Your task to perform on an android device: change alarm snooze length Image 0: 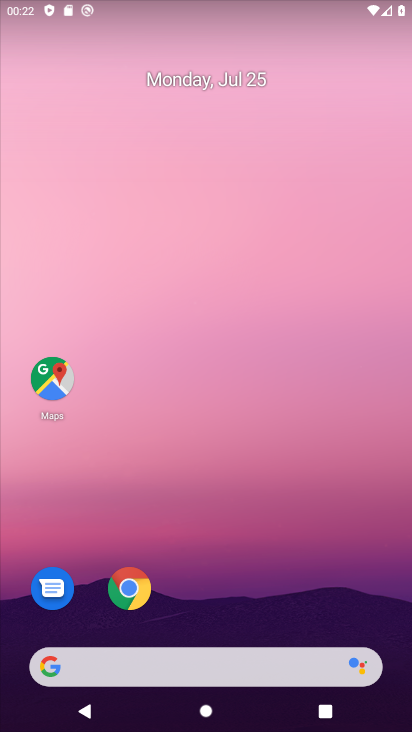
Step 0: drag from (256, 622) to (308, 4)
Your task to perform on an android device: change alarm snooze length Image 1: 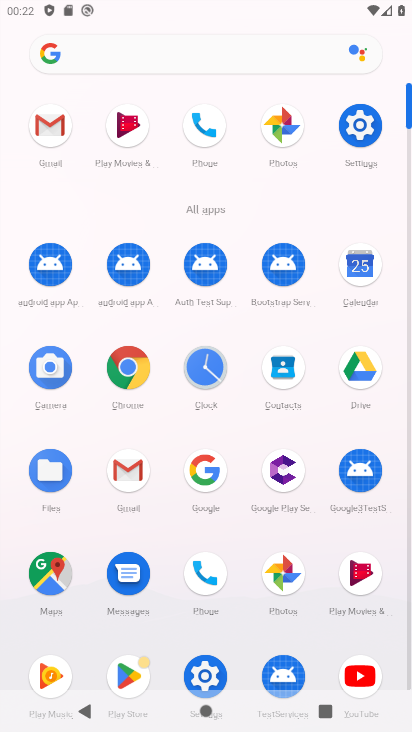
Step 1: click (231, 367)
Your task to perform on an android device: change alarm snooze length Image 2: 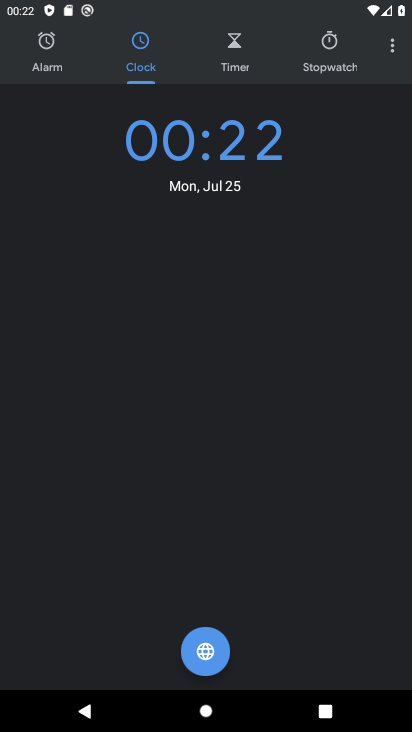
Step 2: click (390, 47)
Your task to perform on an android device: change alarm snooze length Image 3: 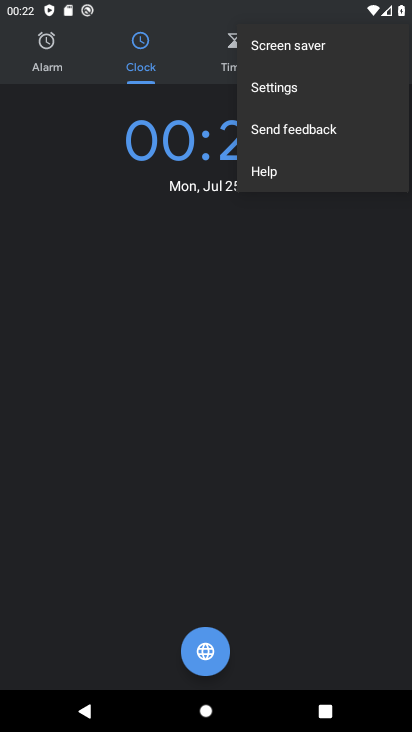
Step 3: click (272, 91)
Your task to perform on an android device: change alarm snooze length Image 4: 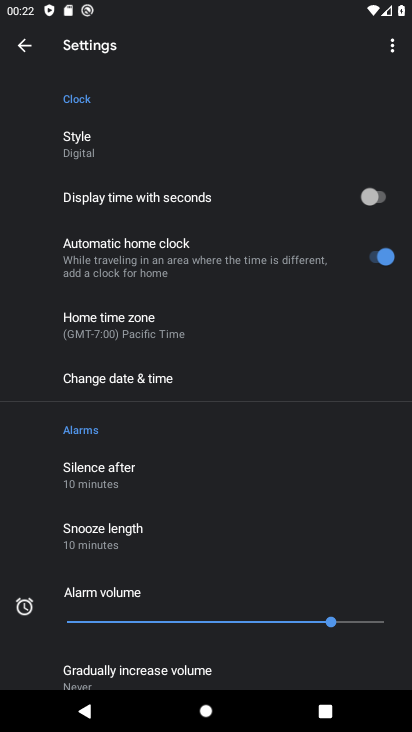
Step 4: click (123, 551)
Your task to perform on an android device: change alarm snooze length Image 5: 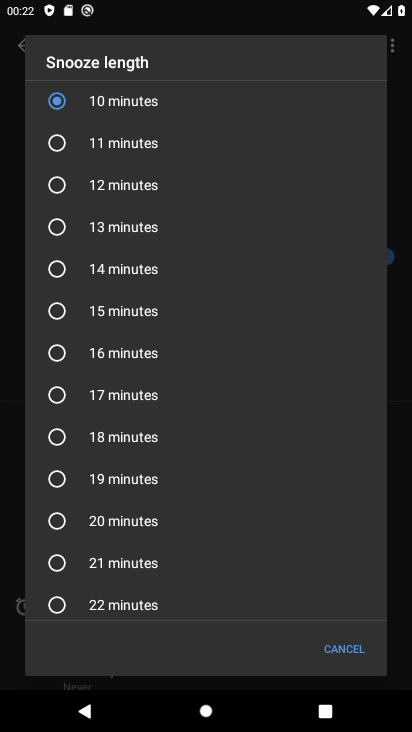
Step 5: click (107, 318)
Your task to perform on an android device: change alarm snooze length Image 6: 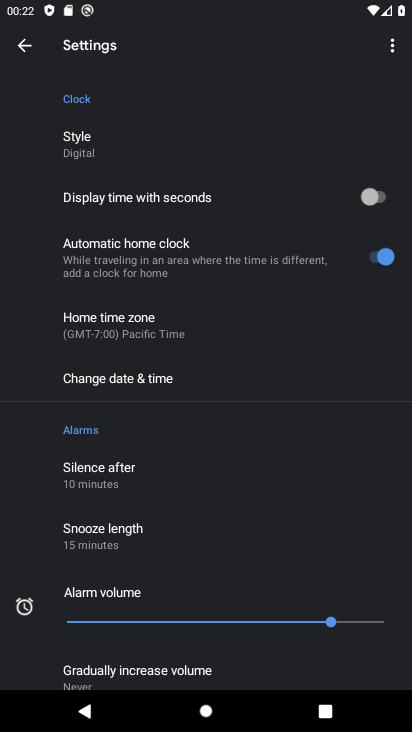
Step 6: task complete